Your task to perform on an android device: What is the news today? Image 0: 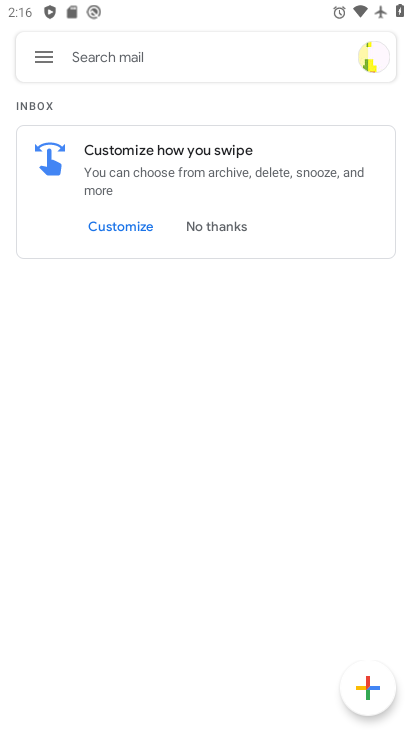
Step 0: press back button
Your task to perform on an android device: What is the news today? Image 1: 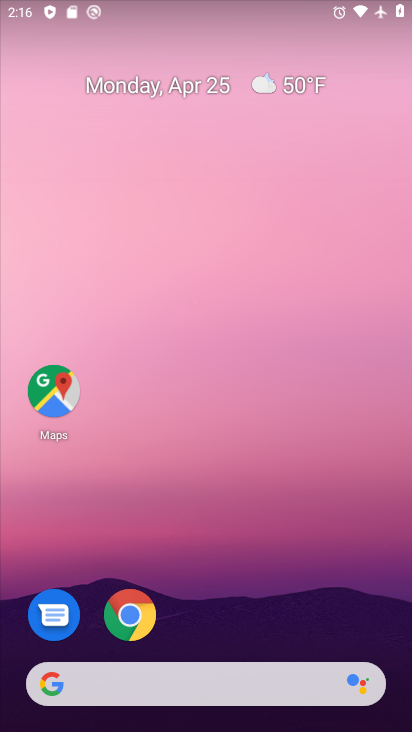
Step 1: drag from (232, 580) to (301, 42)
Your task to perform on an android device: What is the news today? Image 2: 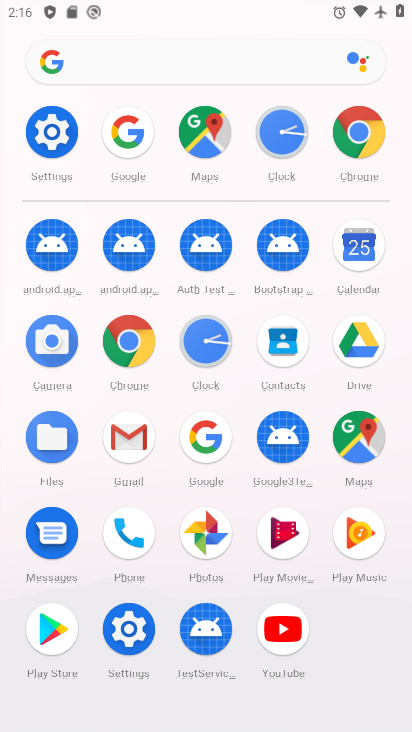
Step 2: click (125, 135)
Your task to perform on an android device: What is the news today? Image 3: 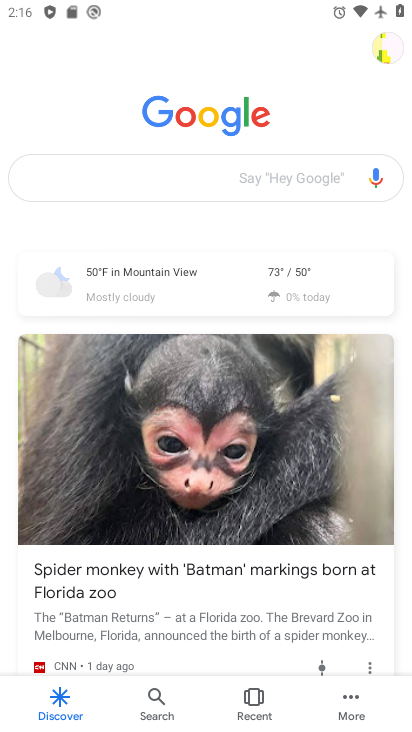
Step 3: click (137, 172)
Your task to perform on an android device: What is the news today? Image 4: 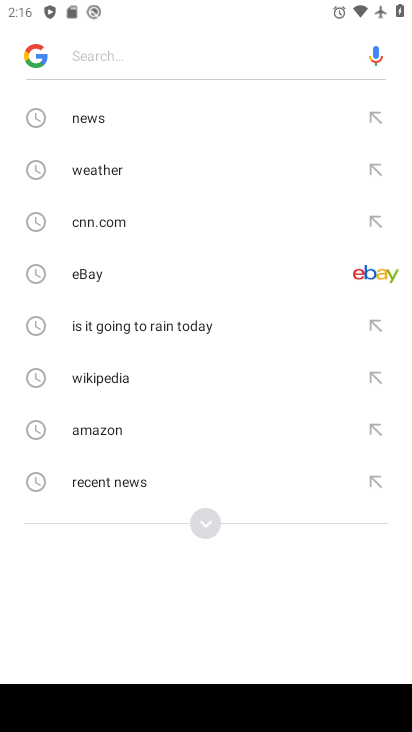
Step 4: click (94, 120)
Your task to perform on an android device: What is the news today? Image 5: 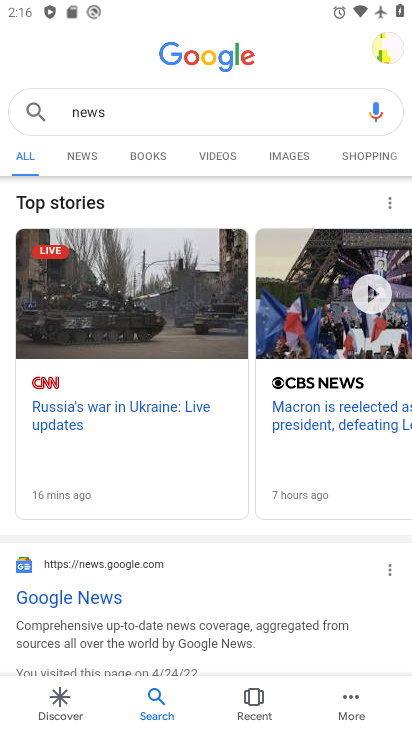
Step 5: task complete